Your task to perform on an android device: toggle notifications settings in the gmail app Image 0: 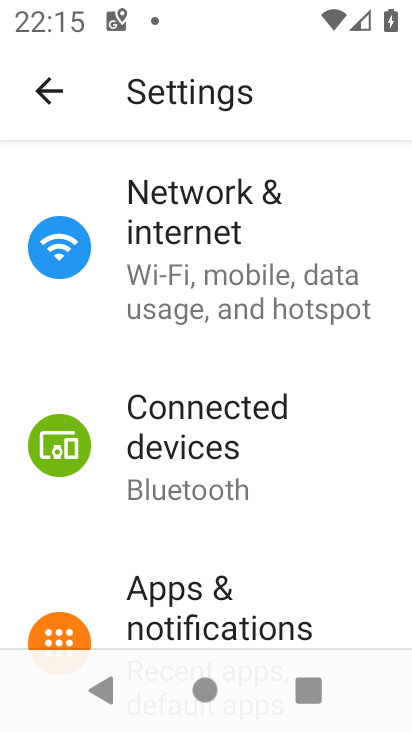
Step 0: press home button
Your task to perform on an android device: toggle notifications settings in the gmail app Image 1: 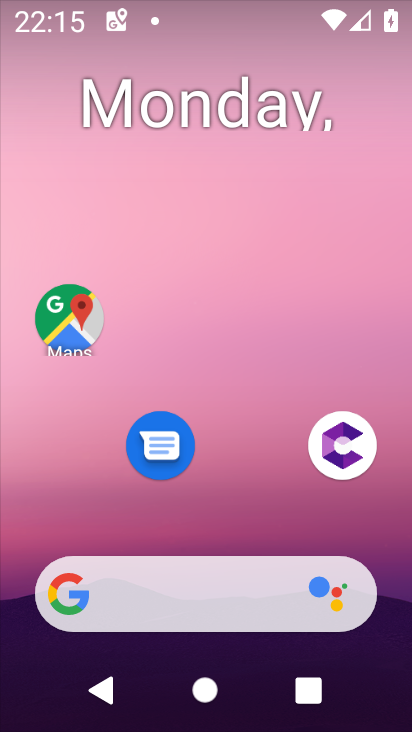
Step 1: drag from (233, 496) to (226, 225)
Your task to perform on an android device: toggle notifications settings in the gmail app Image 2: 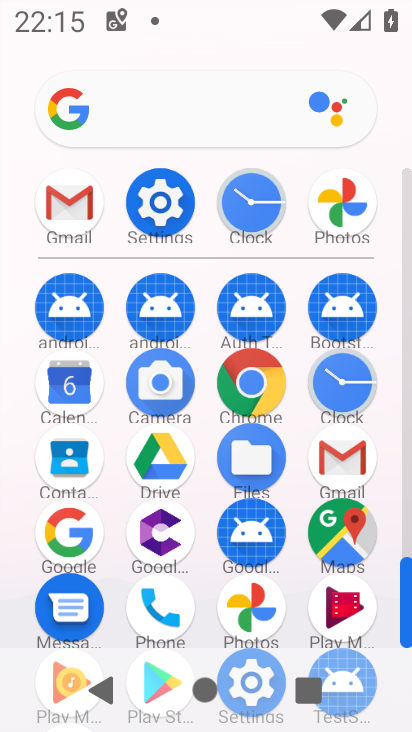
Step 2: click (61, 221)
Your task to perform on an android device: toggle notifications settings in the gmail app Image 3: 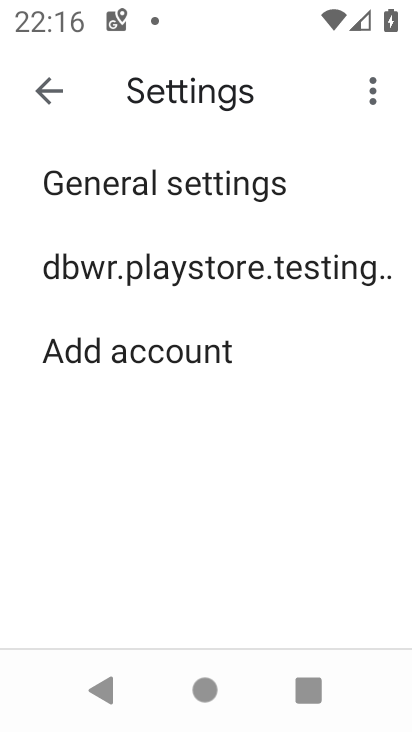
Step 3: click (96, 187)
Your task to perform on an android device: toggle notifications settings in the gmail app Image 4: 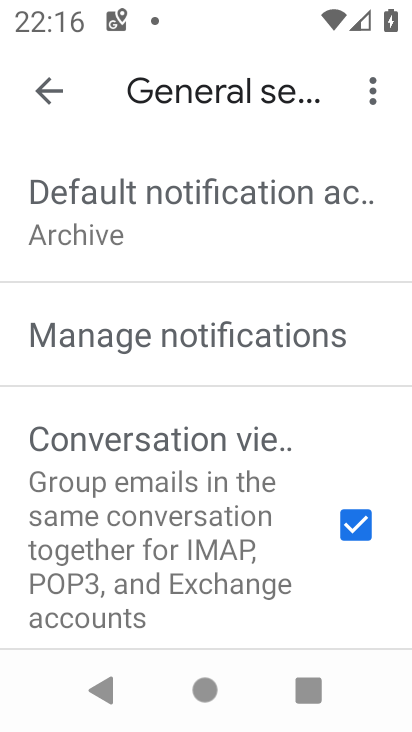
Step 4: click (173, 345)
Your task to perform on an android device: toggle notifications settings in the gmail app Image 5: 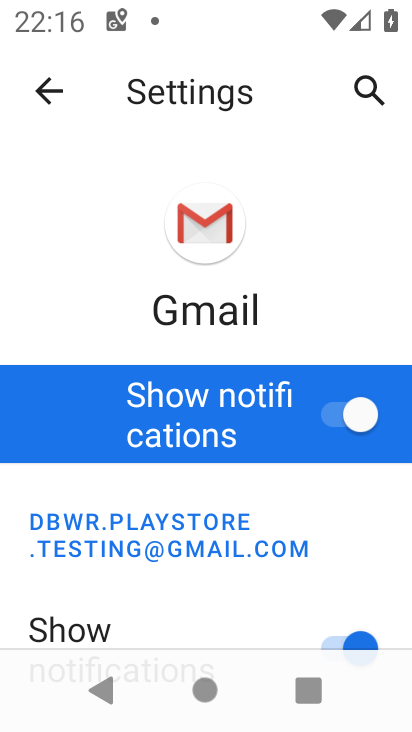
Step 5: click (356, 424)
Your task to perform on an android device: toggle notifications settings in the gmail app Image 6: 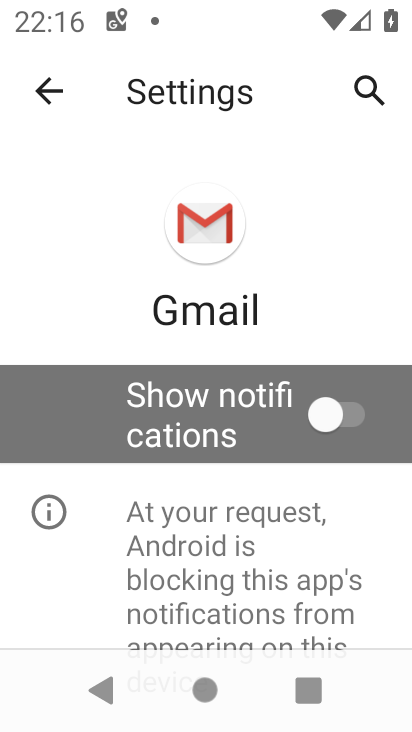
Step 6: task complete